Your task to perform on an android device: change the upload size in google photos Image 0: 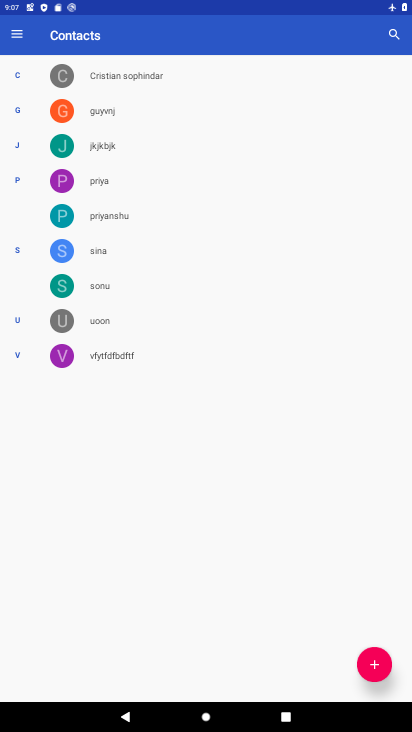
Step 0: press home button
Your task to perform on an android device: change the upload size in google photos Image 1: 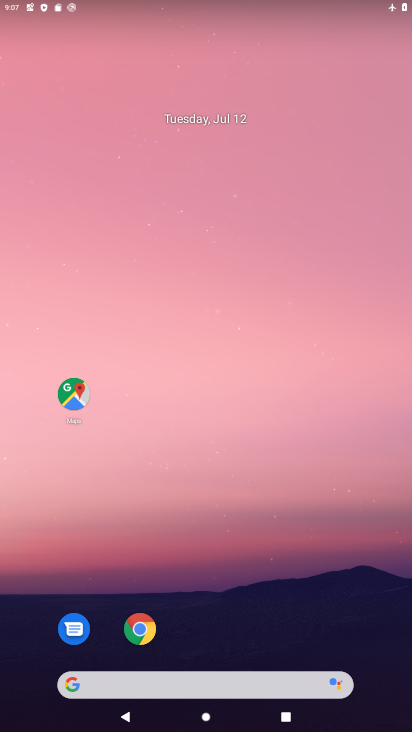
Step 1: drag from (179, 652) to (239, 271)
Your task to perform on an android device: change the upload size in google photos Image 2: 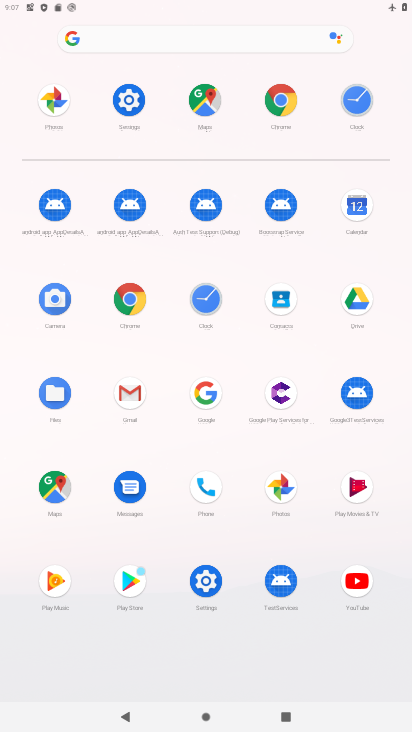
Step 2: click (274, 488)
Your task to perform on an android device: change the upload size in google photos Image 3: 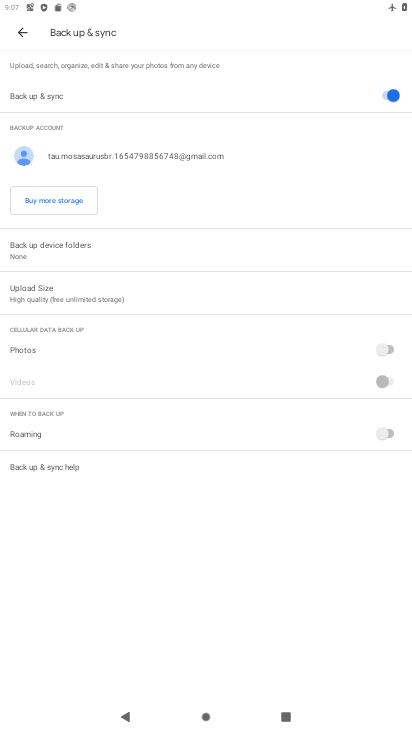
Step 3: click (97, 292)
Your task to perform on an android device: change the upload size in google photos Image 4: 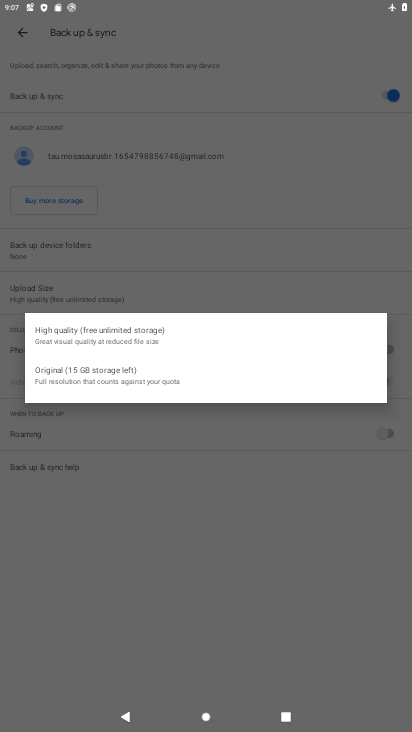
Step 4: click (113, 375)
Your task to perform on an android device: change the upload size in google photos Image 5: 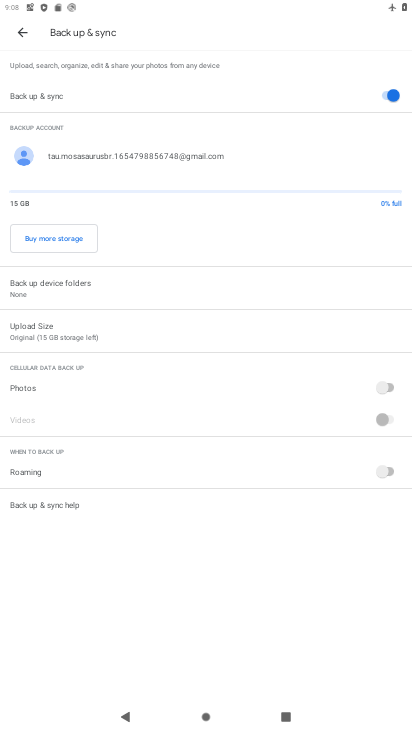
Step 5: click (149, 329)
Your task to perform on an android device: change the upload size in google photos Image 6: 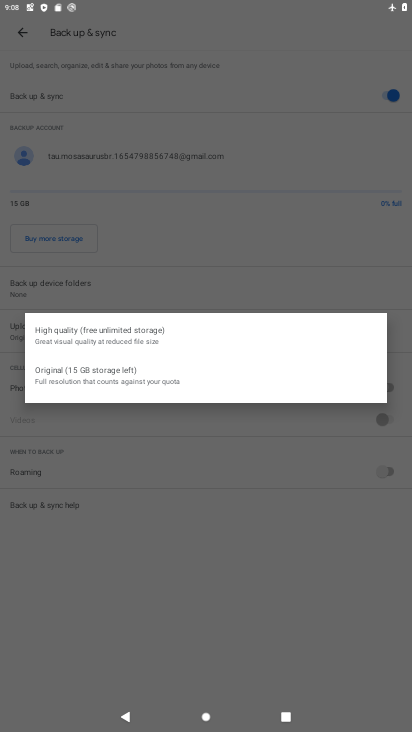
Step 6: click (93, 368)
Your task to perform on an android device: change the upload size in google photos Image 7: 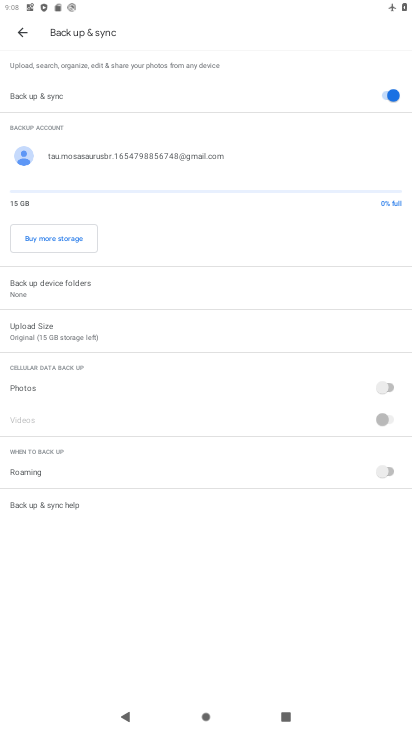
Step 7: task complete